Your task to perform on an android device: Search for Mexican restaurants on Maps Image 0: 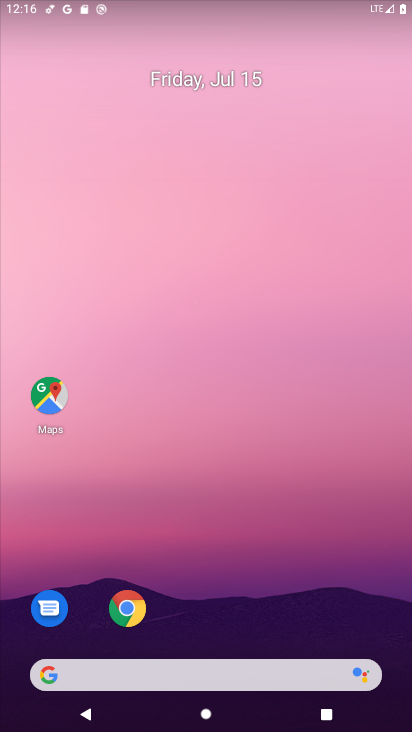
Step 0: click (51, 395)
Your task to perform on an android device: Search for Mexican restaurants on Maps Image 1: 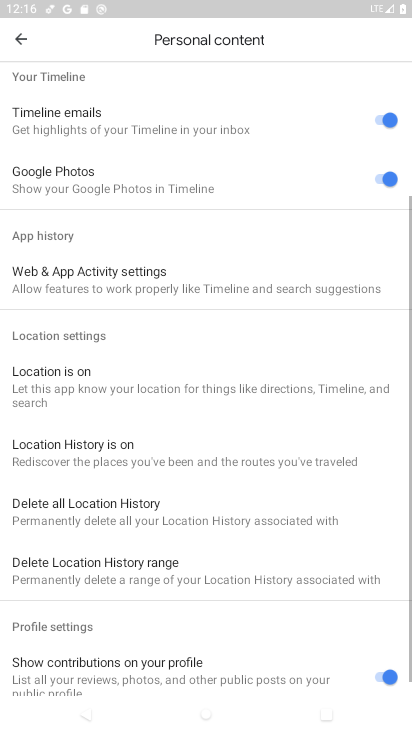
Step 1: click (18, 35)
Your task to perform on an android device: Search for Mexican restaurants on Maps Image 2: 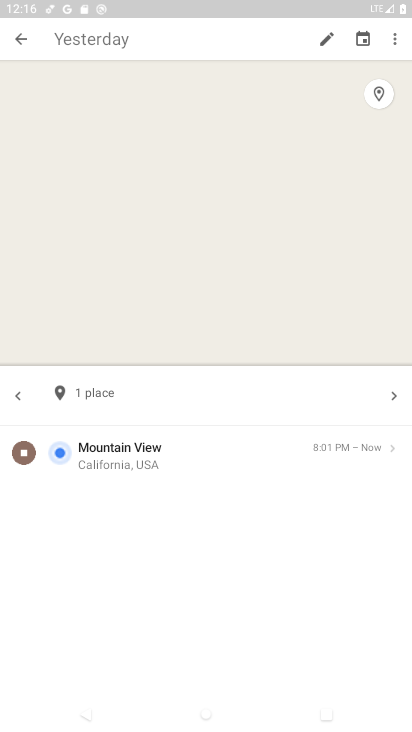
Step 2: click (19, 40)
Your task to perform on an android device: Search for Mexican restaurants on Maps Image 3: 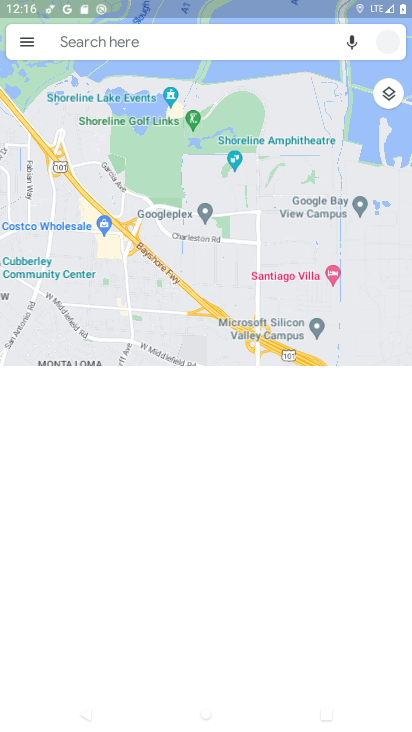
Step 3: click (79, 47)
Your task to perform on an android device: Search for Mexican restaurants on Maps Image 4: 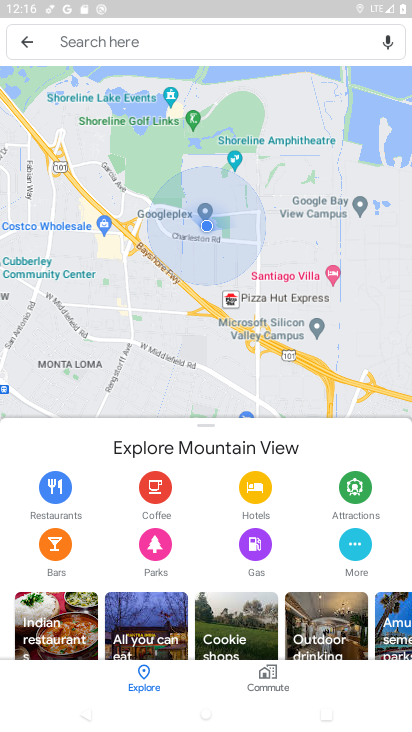
Step 4: click (104, 33)
Your task to perform on an android device: Search for Mexican restaurants on Maps Image 5: 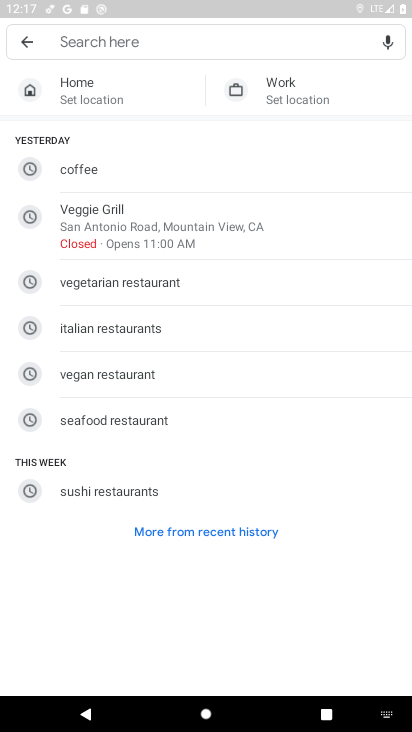
Step 5: type "Mexican restaurants "
Your task to perform on an android device: Search for Mexican restaurants on Maps Image 6: 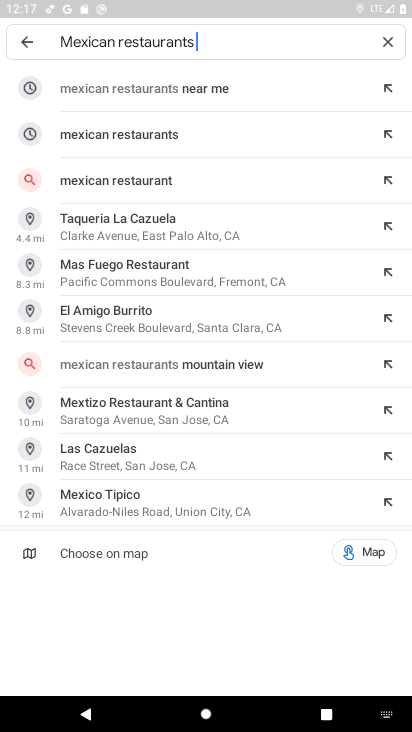
Step 6: click (146, 139)
Your task to perform on an android device: Search for Mexican restaurants on Maps Image 7: 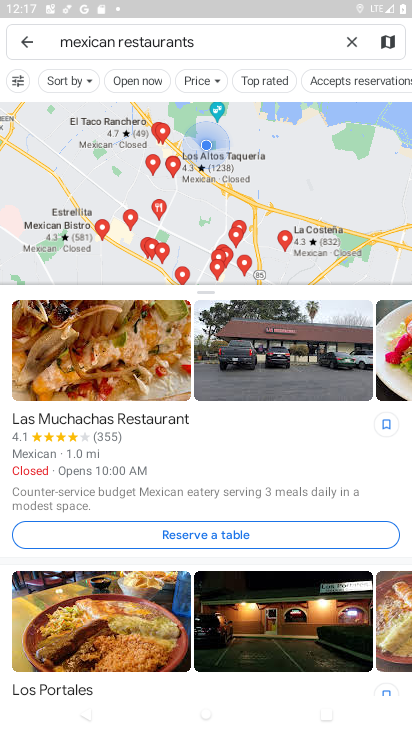
Step 7: task complete